Your task to perform on an android device: open app "Duolingo: language lessons" (install if not already installed) Image 0: 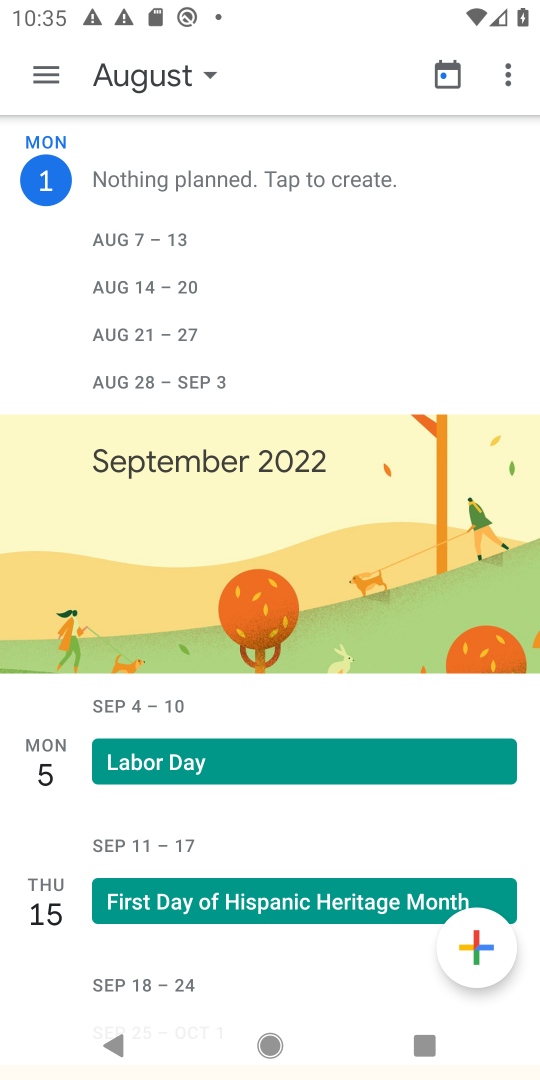
Step 0: press home button
Your task to perform on an android device: open app "Duolingo: language lessons" (install if not already installed) Image 1: 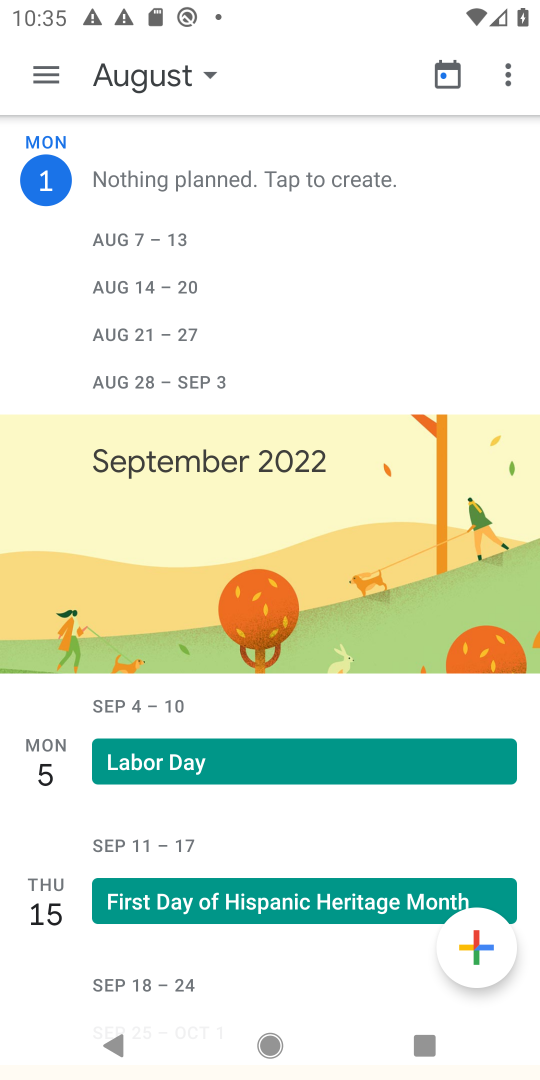
Step 1: press home button
Your task to perform on an android device: open app "Duolingo: language lessons" (install if not already installed) Image 2: 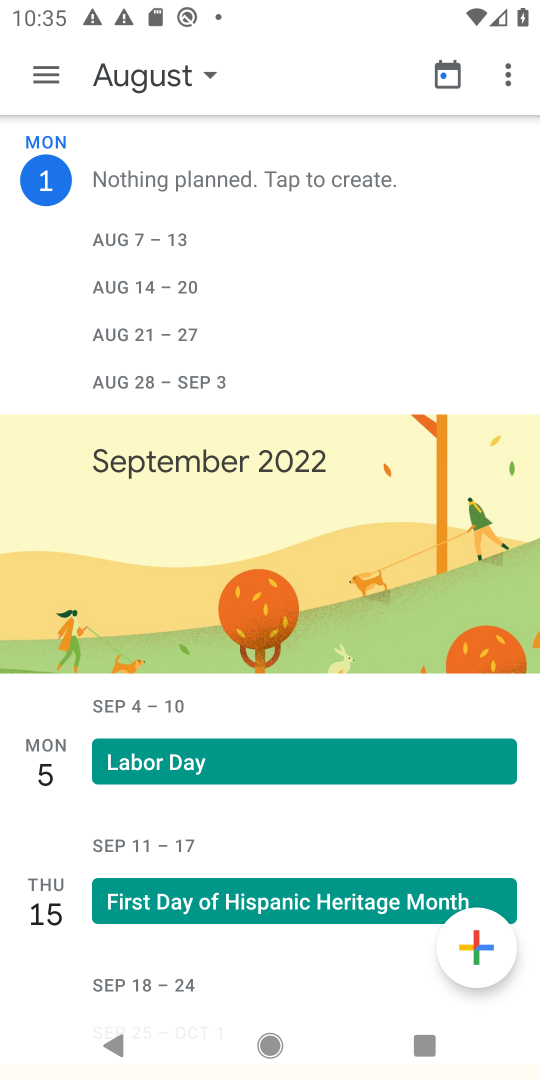
Step 2: click (305, 20)
Your task to perform on an android device: open app "Duolingo: language lessons" (install if not already installed) Image 3: 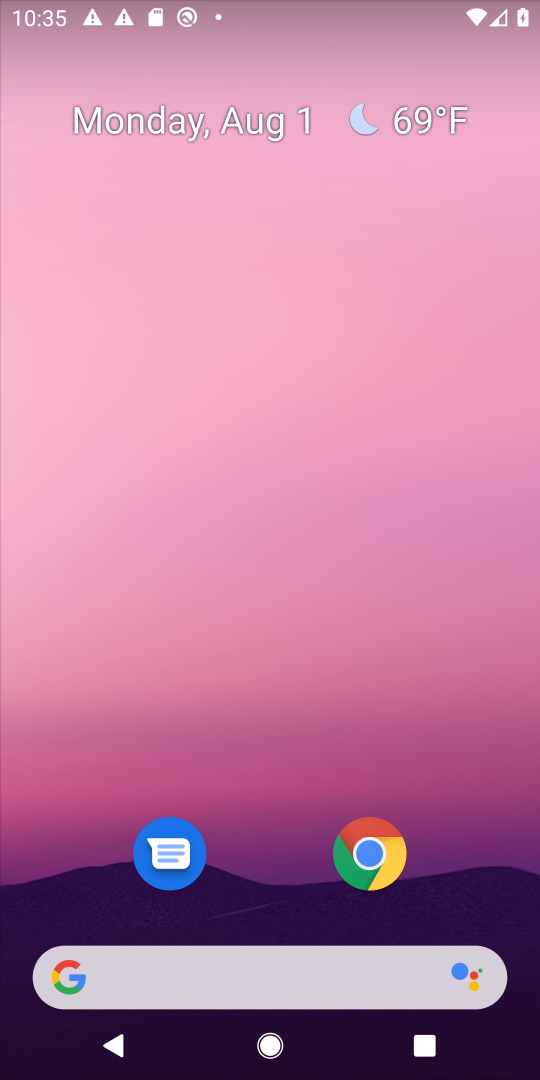
Step 3: press home button
Your task to perform on an android device: open app "Duolingo: language lessons" (install if not already installed) Image 4: 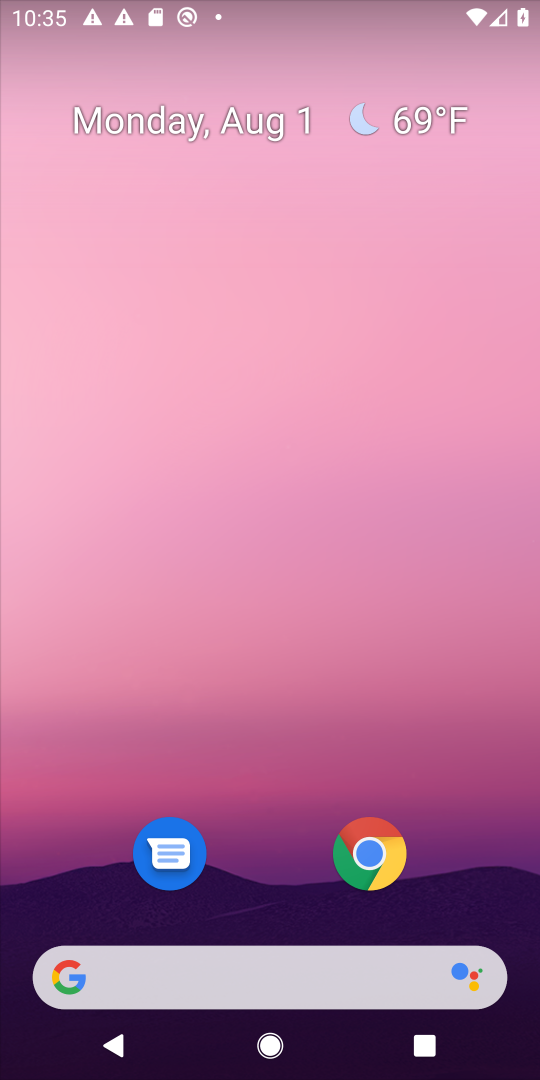
Step 4: drag from (271, 888) to (384, 2)
Your task to perform on an android device: open app "Duolingo: language lessons" (install if not already installed) Image 5: 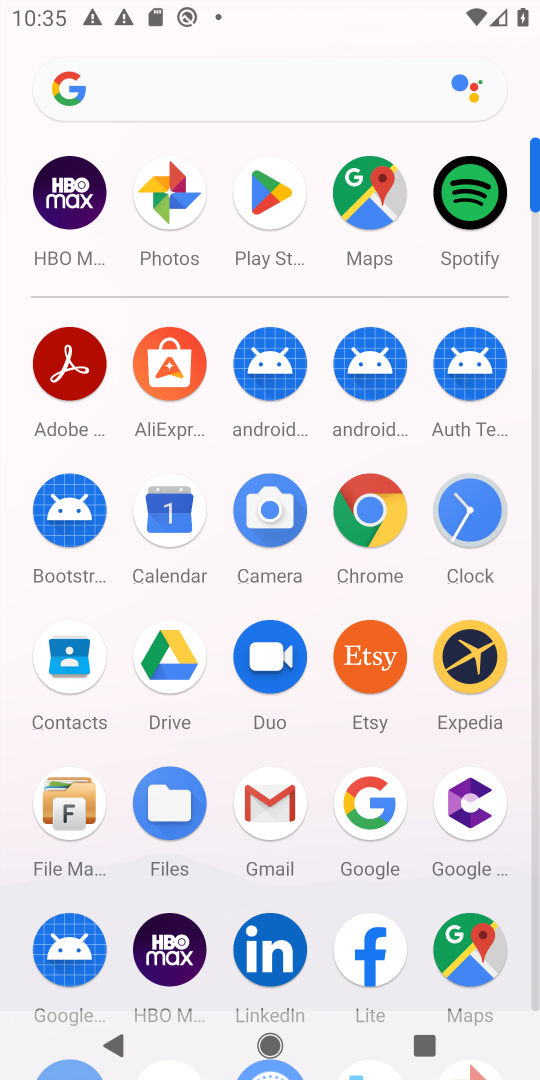
Step 5: click (256, 195)
Your task to perform on an android device: open app "Duolingo: language lessons" (install if not already installed) Image 6: 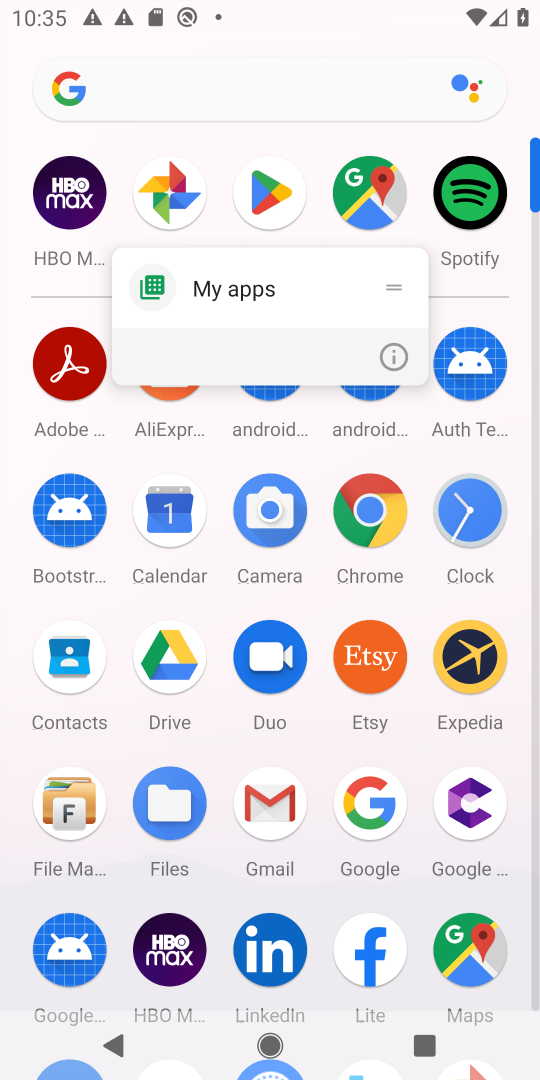
Step 6: click (384, 358)
Your task to perform on an android device: open app "Duolingo: language lessons" (install if not already installed) Image 7: 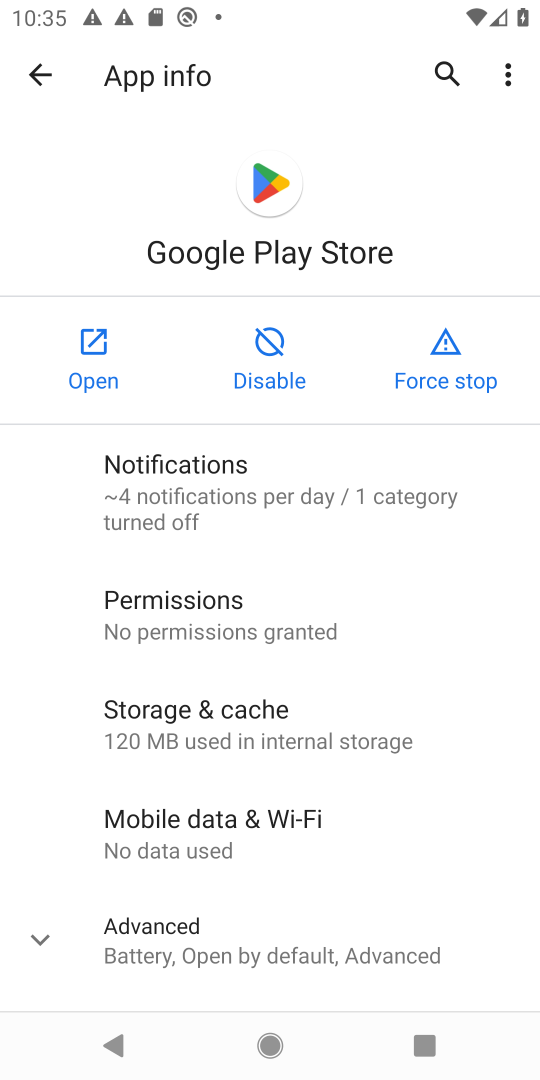
Step 7: click (82, 354)
Your task to perform on an android device: open app "Duolingo: language lessons" (install if not already installed) Image 8: 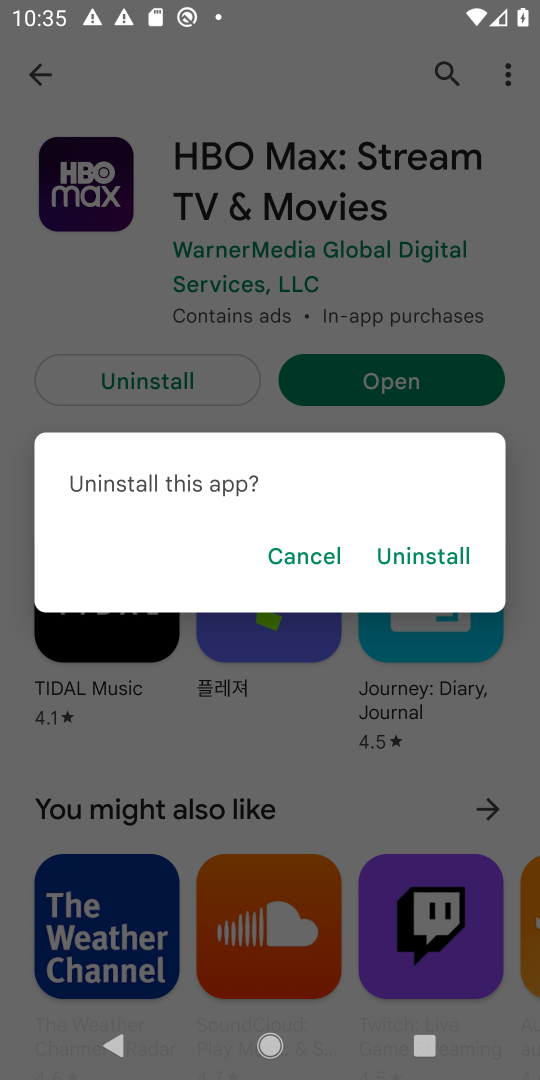
Step 8: click (297, 554)
Your task to perform on an android device: open app "Duolingo: language lessons" (install if not already installed) Image 9: 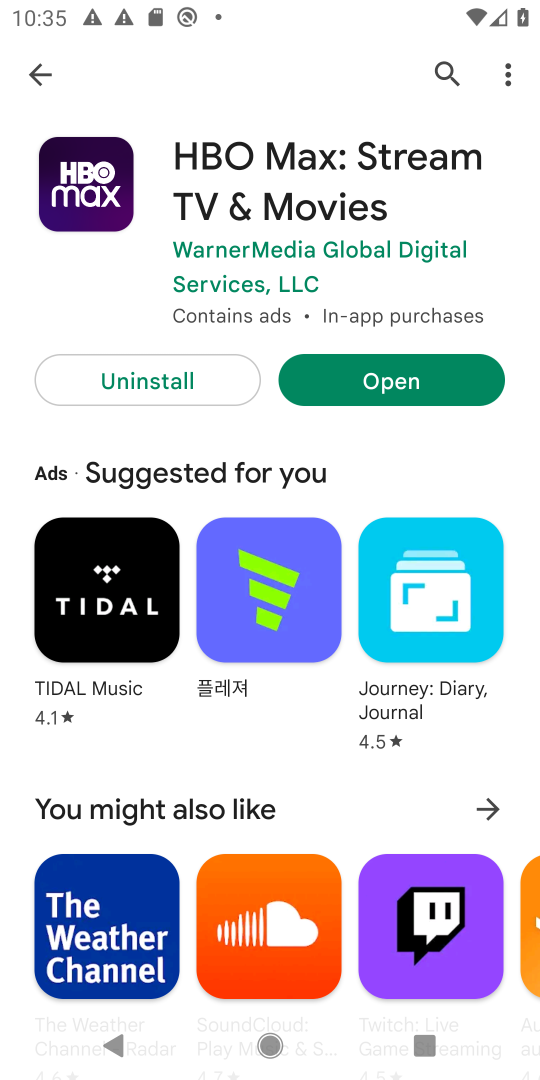
Step 9: click (448, 72)
Your task to perform on an android device: open app "Duolingo: language lessons" (install if not already installed) Image 10: 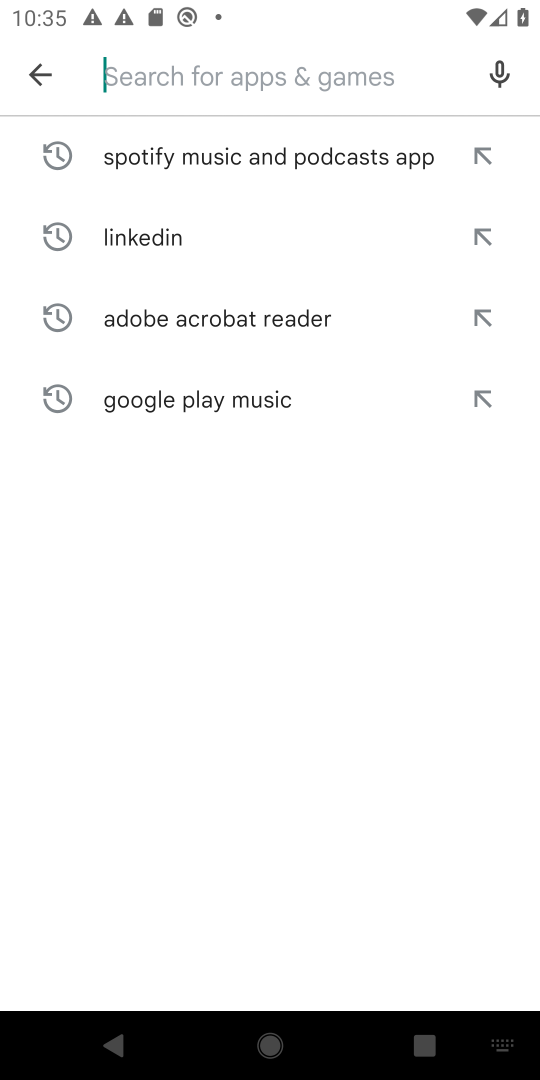
Step 10: type "Duolingo: language lessons"
Your task to perform on an android device: open app "Duolingo: language lessons" (install if not already installed) Image 11: 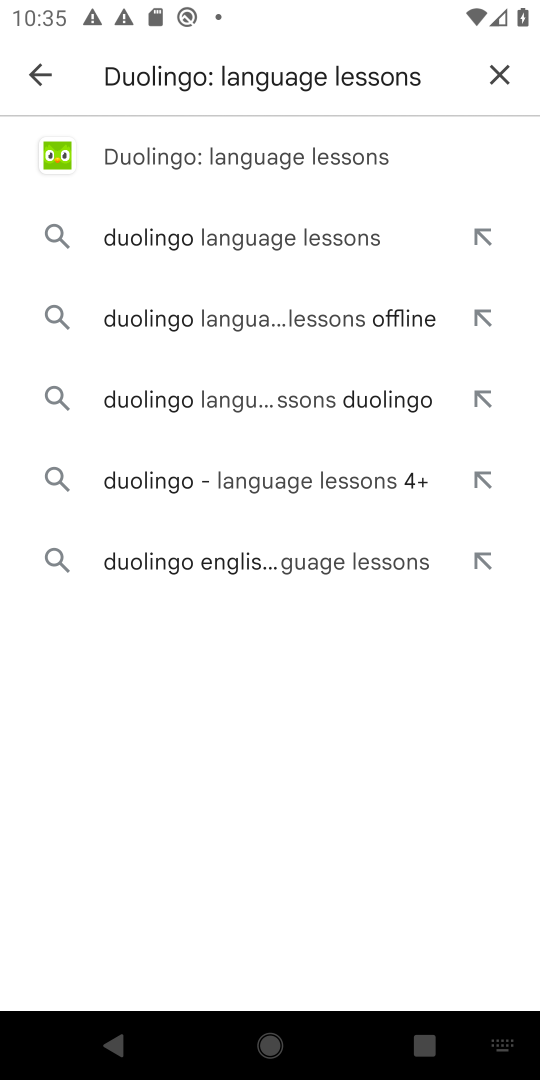
Step 11: click (199, 161)
Your task to perform on an android device: open app "Duolingo: language lessons" (install if not already installed) Image 12: 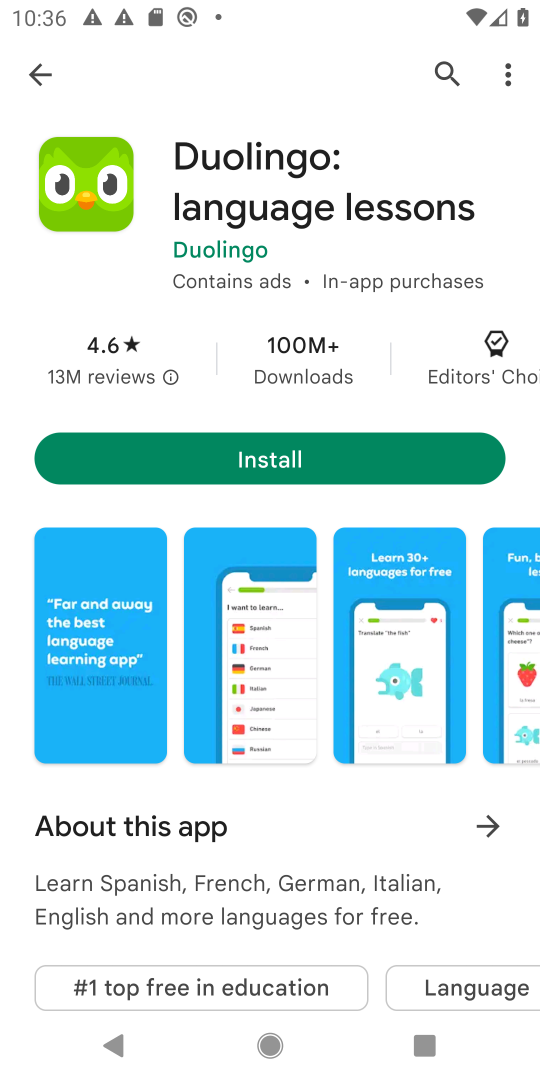
Step 12: click (205, 442)
Your task to perform on an android device: open app "Duolingo: language lessons" (install if not already installed) Image 13: 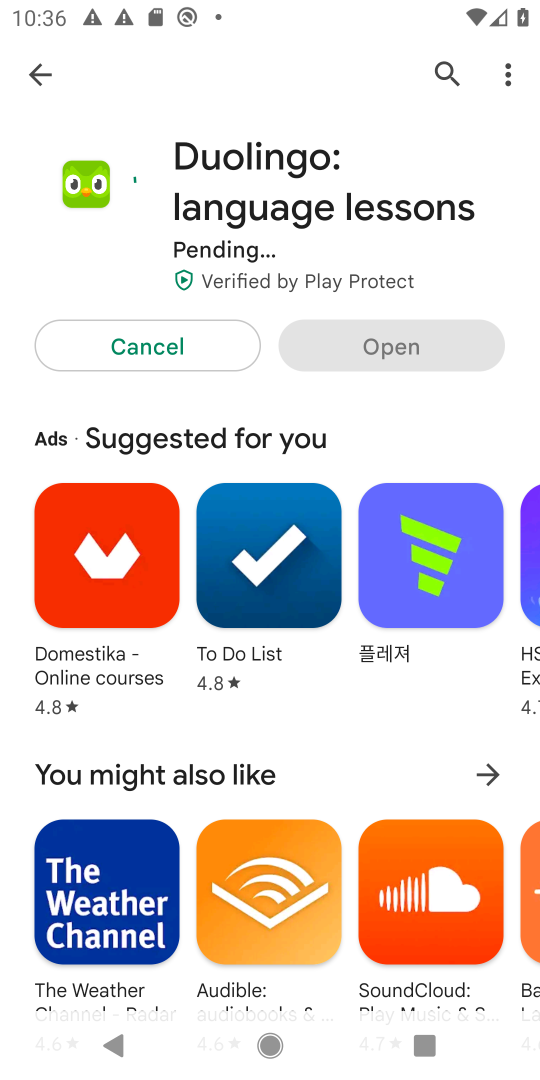
Step 13: drag from (303, 205) to (192, 934)
Your task to perform on an android device: open app "Duolingo: language lessons" (install if not already installed) Image 14: 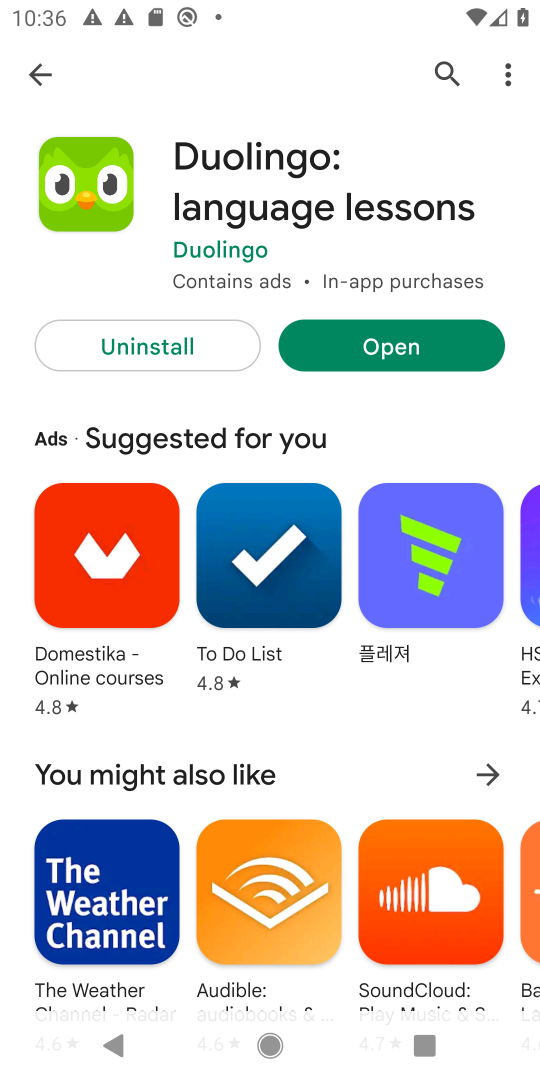
Step 14: click (381, 339)
Your task to perform on an android device: open app "Duolingo: language lessons" (install if not already installed) Image 15: 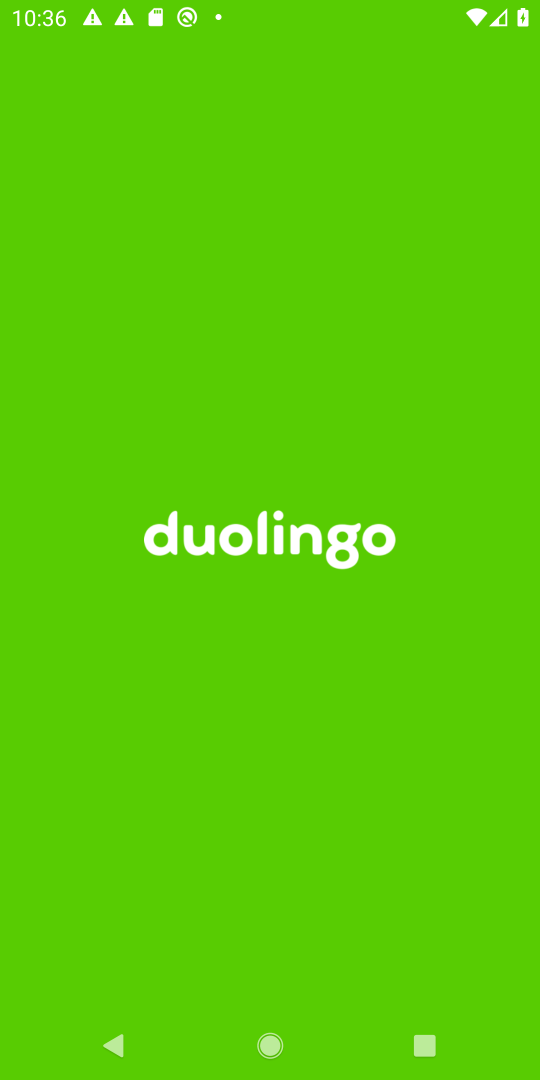
Step 15: task complete